Your task to perform on an android device: turn off wifi Image 0: 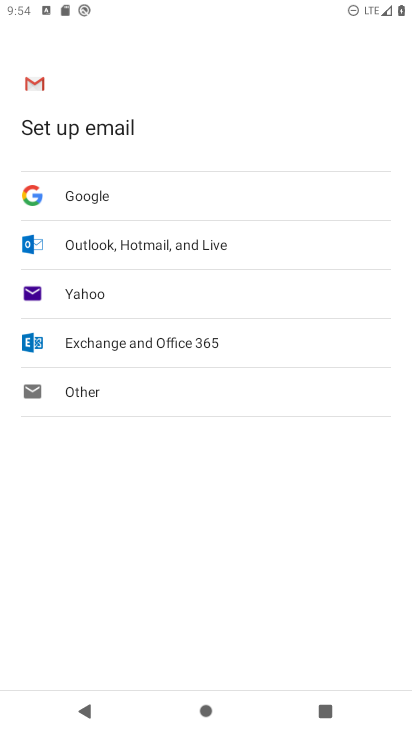
Step 0: press home button
Your task to perform on an android device: turn off wifi Image 1: 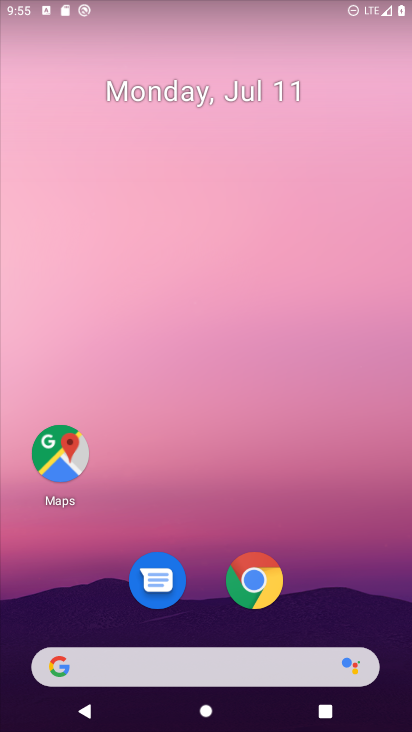
Step 1: drag from (219, 493) to (229, 101)
Your task to perform on an android device: turn off wifi Image 2: 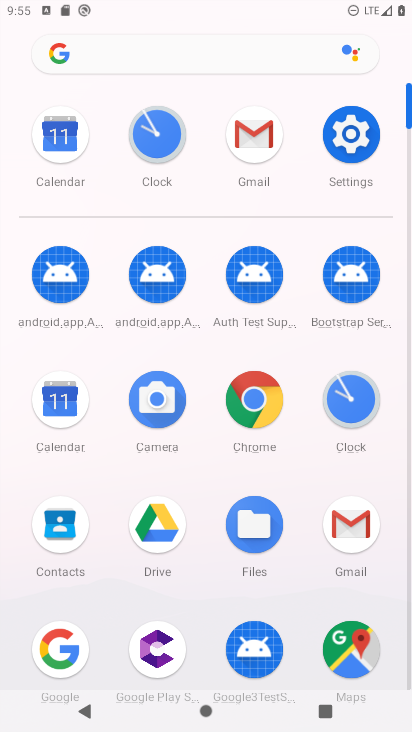
Step 2: click (343, 130)
Your task to perform on an android device: turn off wifi Image 3: 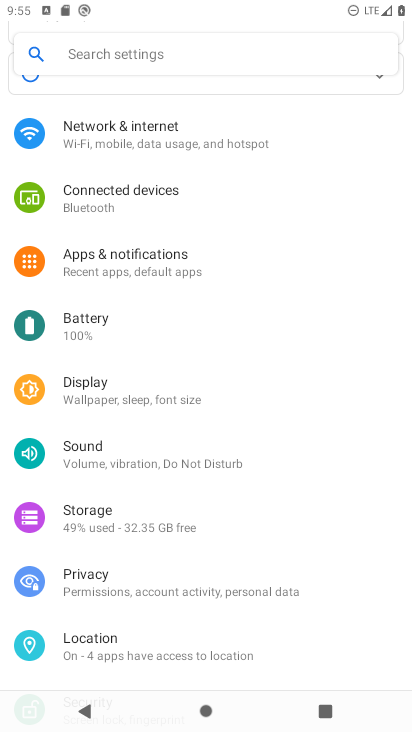
Step 3: click (210, 142)
Your task to perform on an android device: turn off wifi Image 4: 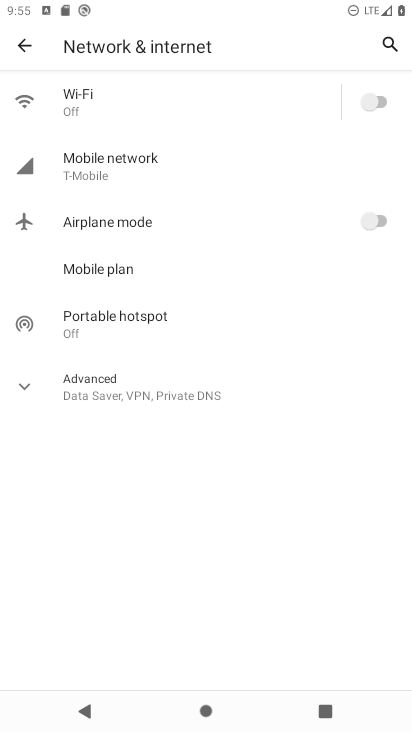
Step 4: task complete